Your task to perform on an android device: What's the weather? Image 0: 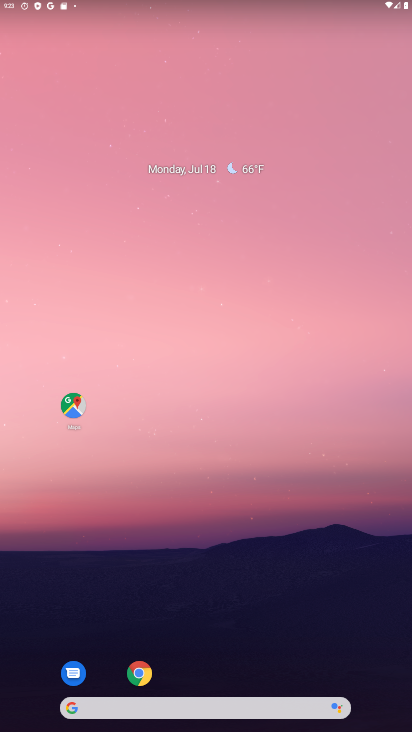
Step 0: drag from (235, 668) to (239, 169)
Your task to perform on an android device: What's the weather? Image 1: 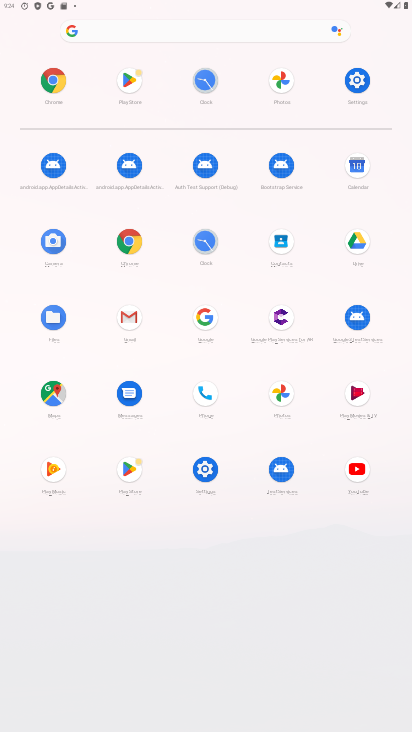
Step 1: click (207, 318)
Your task to perform on an android device: What's the weather? Image 2: 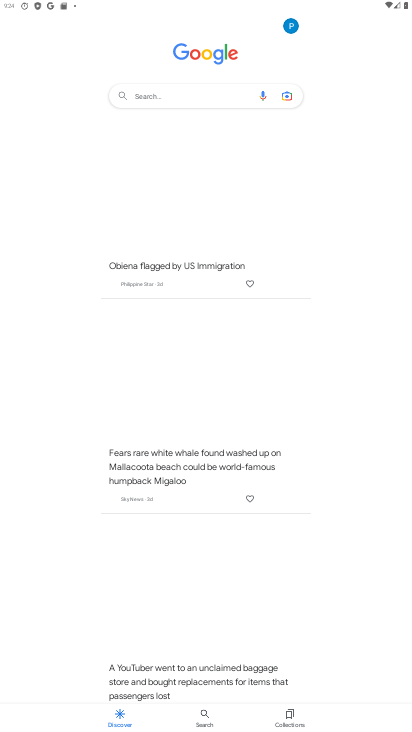
Step 2: click (169, 97)
Your task to perform on an android device: What's the weather? Image 3: 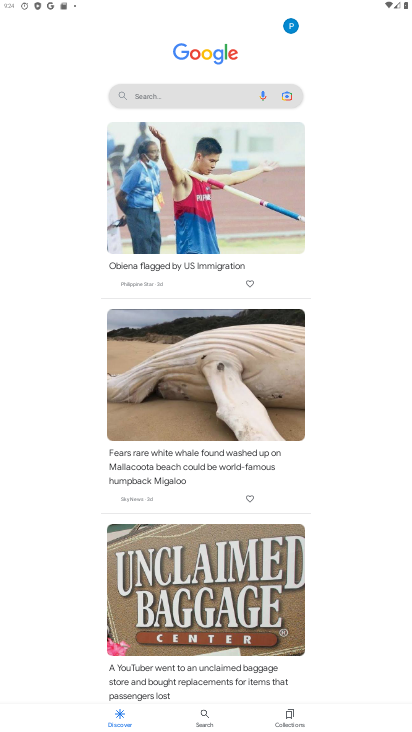
Step 3: click (169, 97)
Your task to perform on an android device: What's the weather? Image 4: 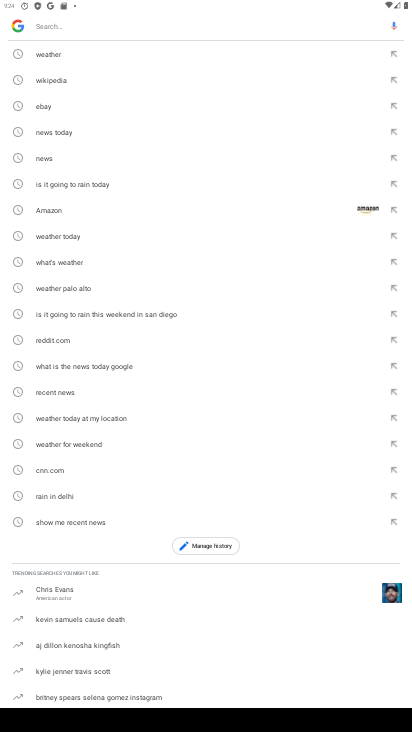
Step 4: click (72, 55)
Your task to perform on an android device: What's the weather? Image 5: 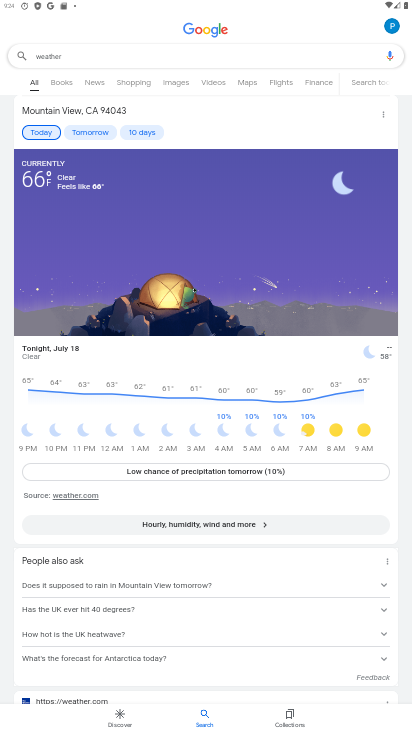
Step 5: task complete